Your task to perform on an android device: What's the weather like in Singapore? Image 0: 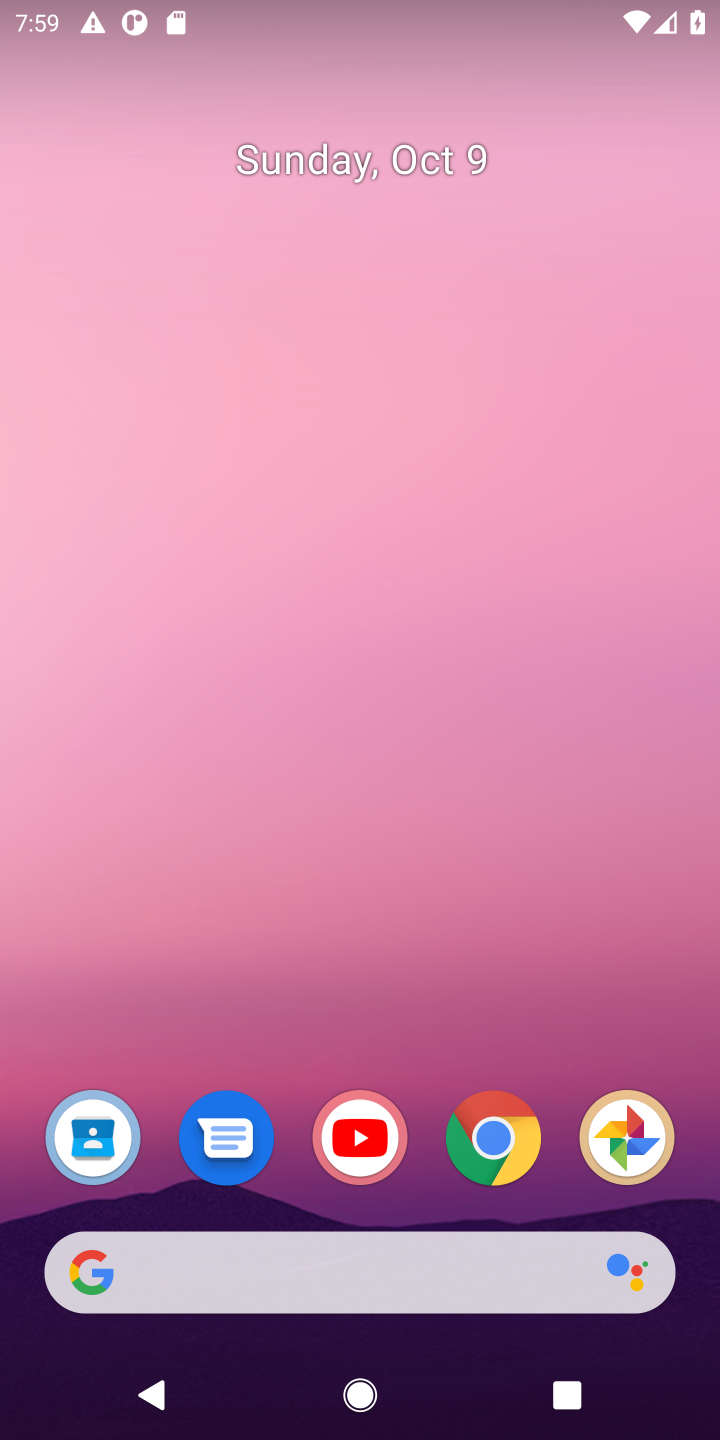
Step 0: drag from (306, 1214) to (328, 355)
Your task to perform on an android device: What's the weather like in Singapore? Image 1: 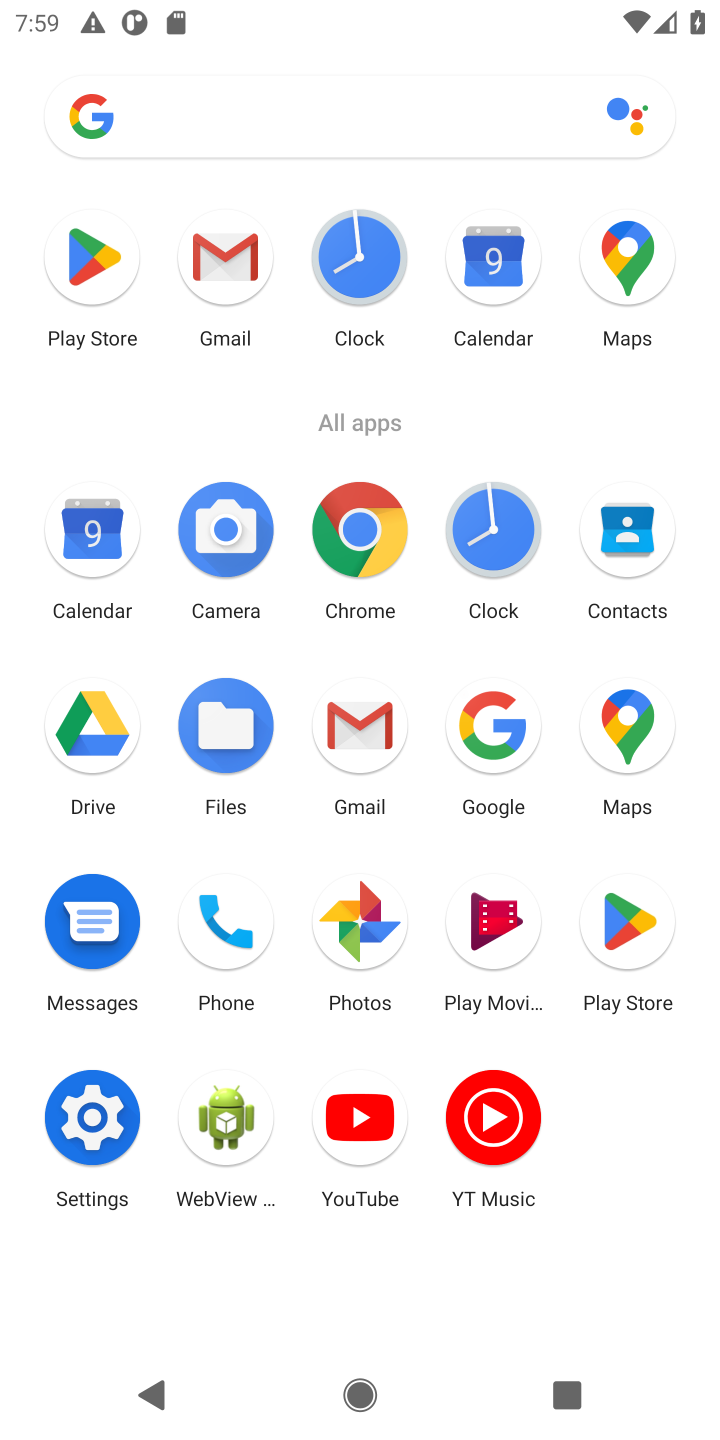
Step 1: click (476, 721)
Your task to perform on an android device: What's the weather like in Singapore? Image 2: 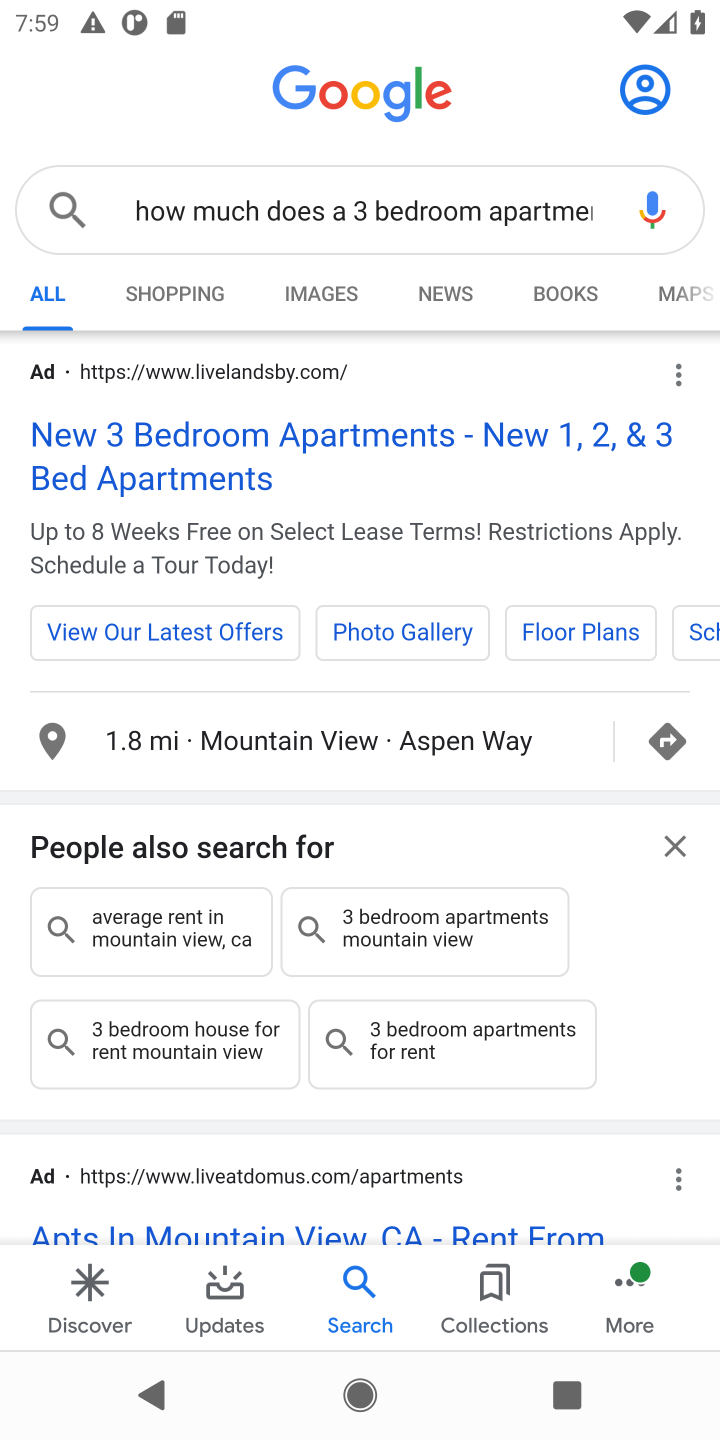
Step 2: click (533, 190)
Your task to perform on an android device: What's the weather like in Singapore? Image 3: 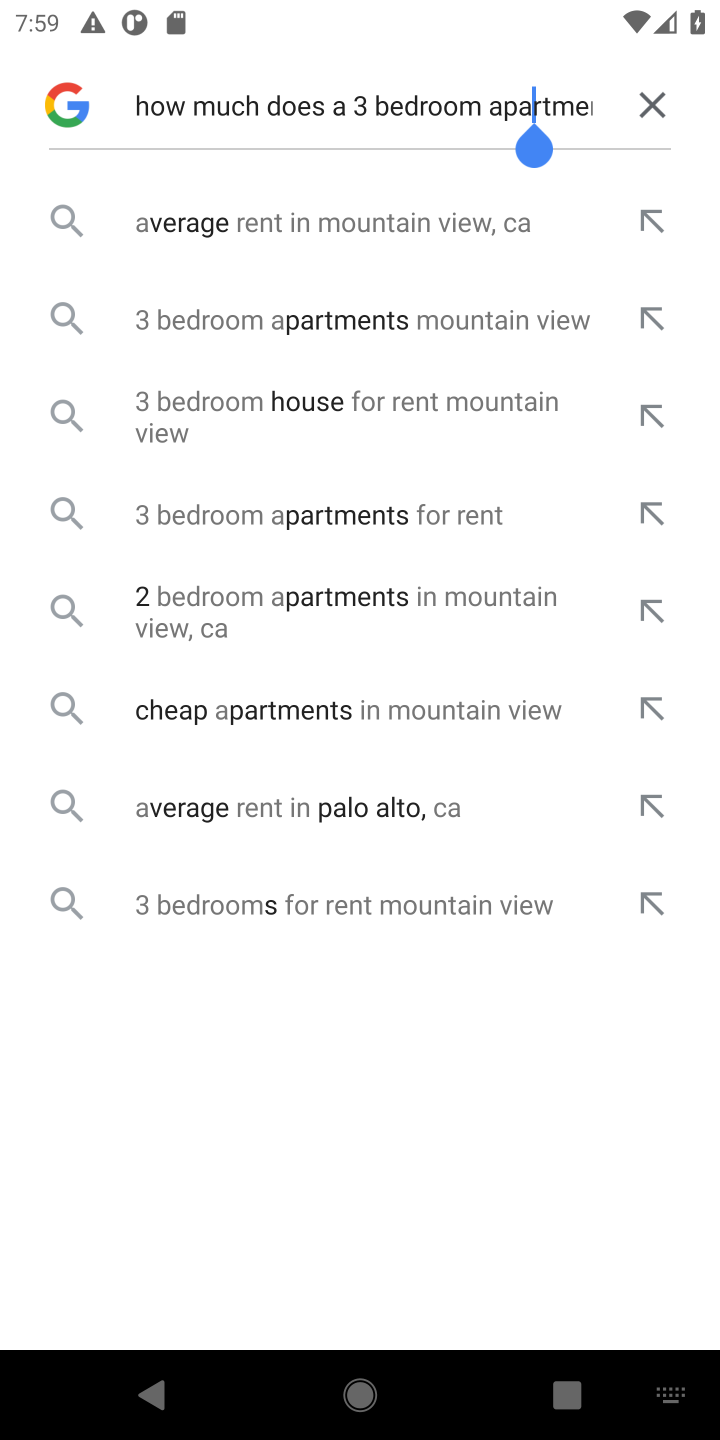
Step 3: click (629, 94)
Your task to perform on an android device: What's the weather like in Singapore? Image 4: 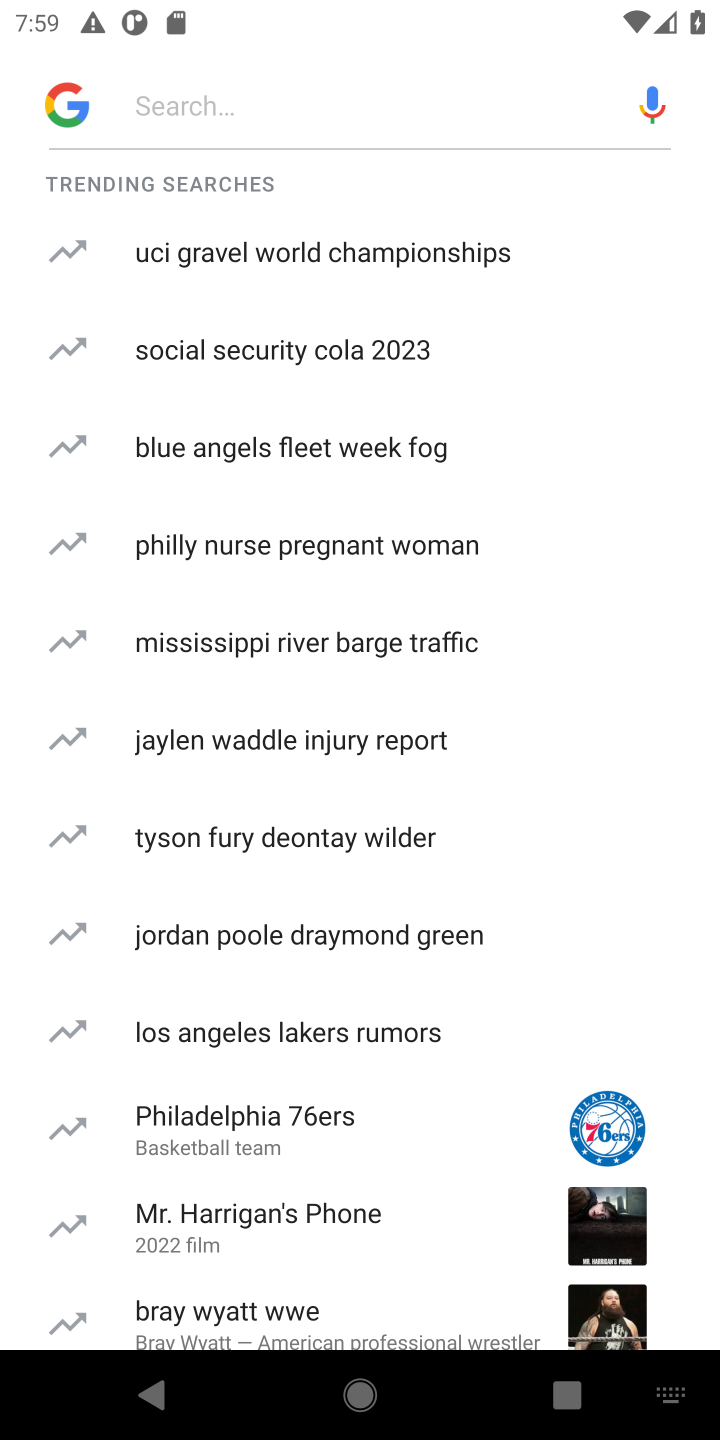
Step 4: click (313, 113)
Your task to perform on an android device: What's the weather like in Singapore? Image 5: 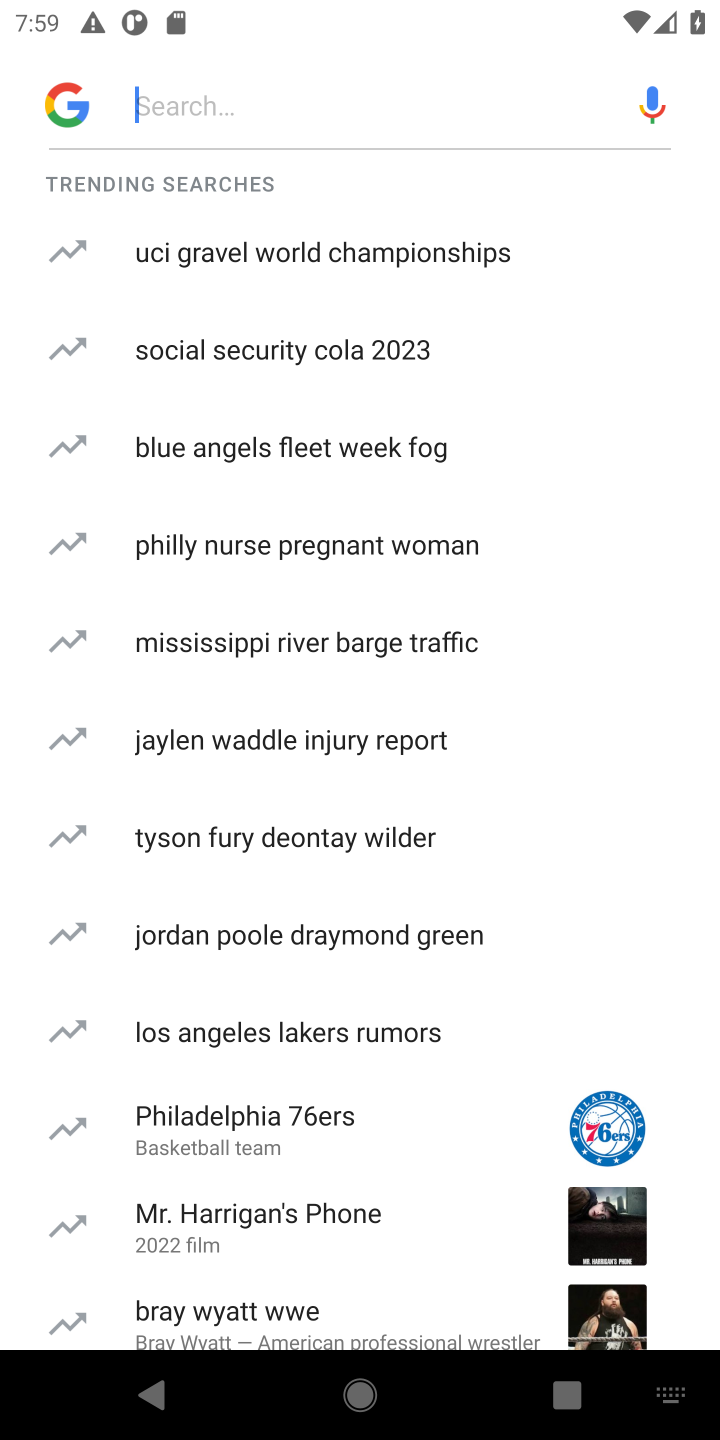
Step 5: type "What's the weather like in Singapore? "
Your task to perform on an android device: What's the weather like in Singapore? Image 6: 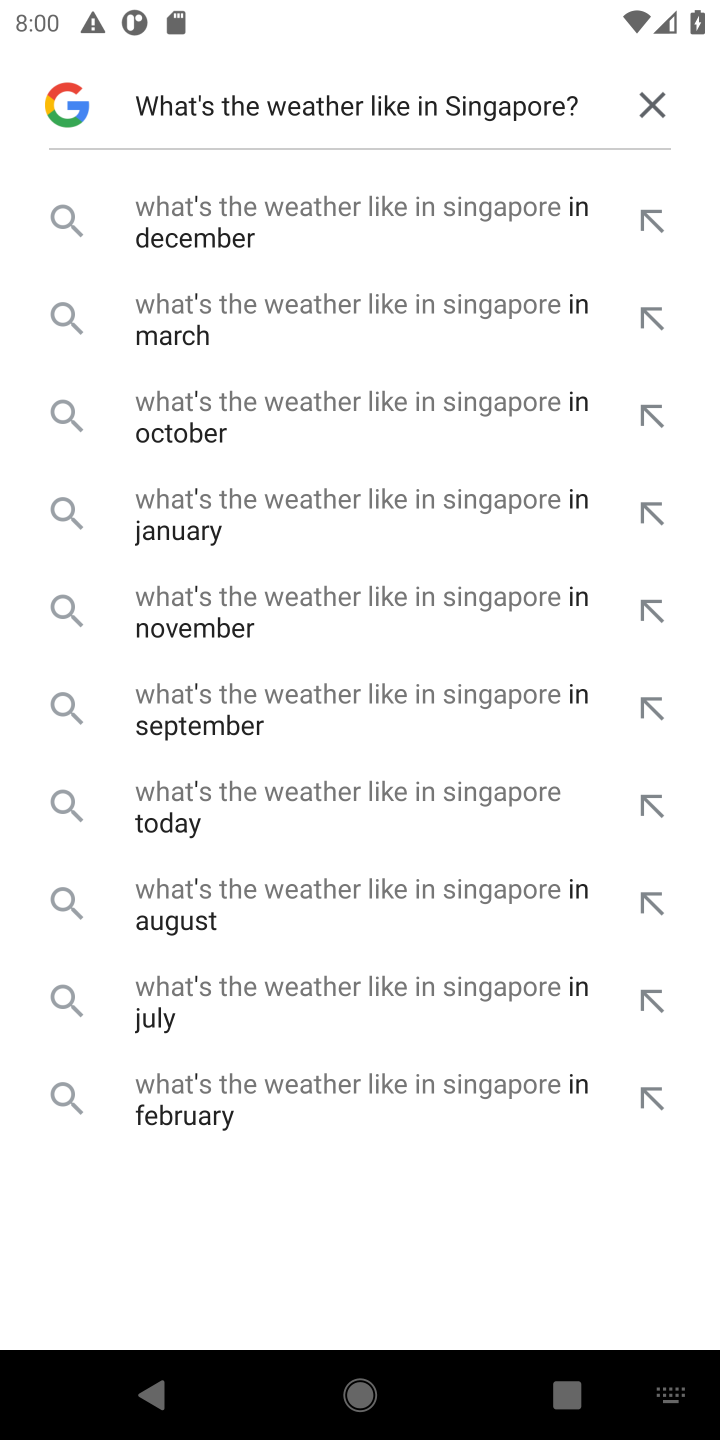
Step 6: click (279, 403)
Your task to perform on an android device: What's the weather like in Singapore? Image 7: 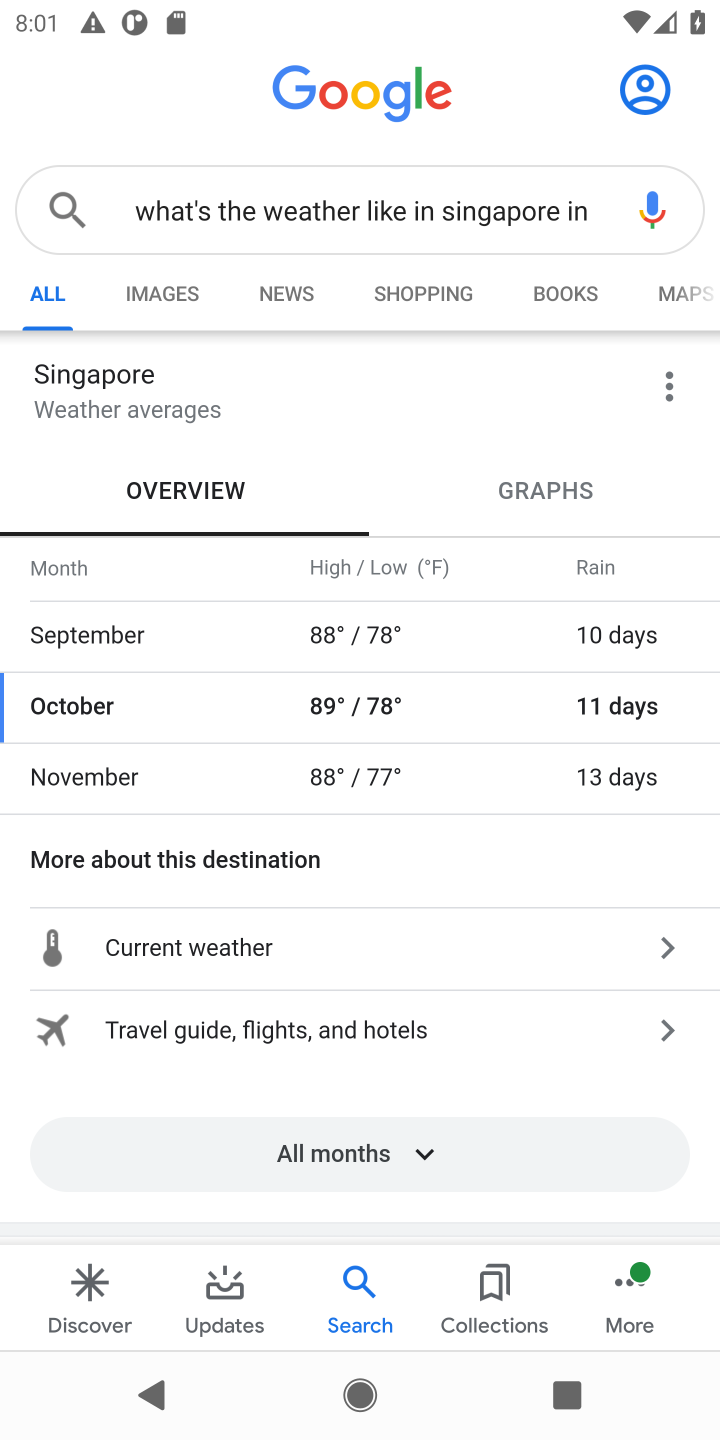
Step 7: task complete